Your task to perform on an android device: Open ESPN.com Image 0: 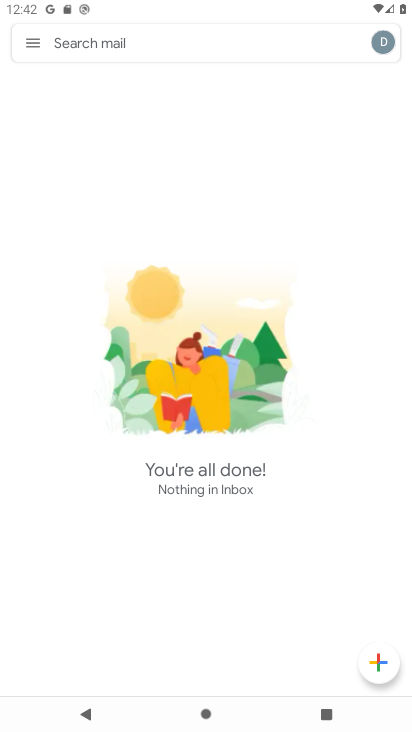
Step 0: press home button
Your task to perform on an android device: Open ESPN.com Image 1: 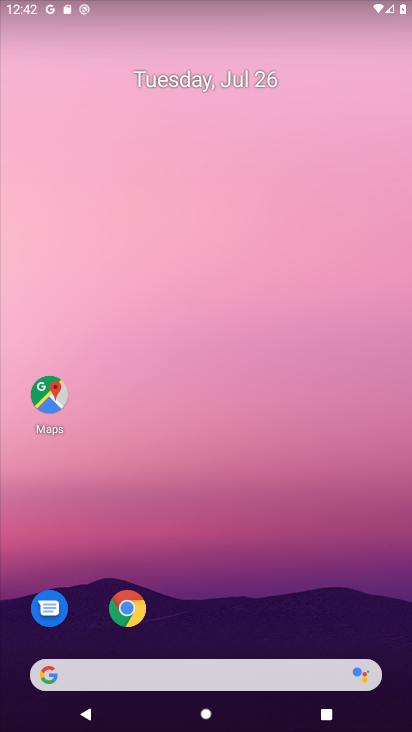
Step 1: click (126, 620)
Your task to perform on an android device: Open ESPN.com Image 2: 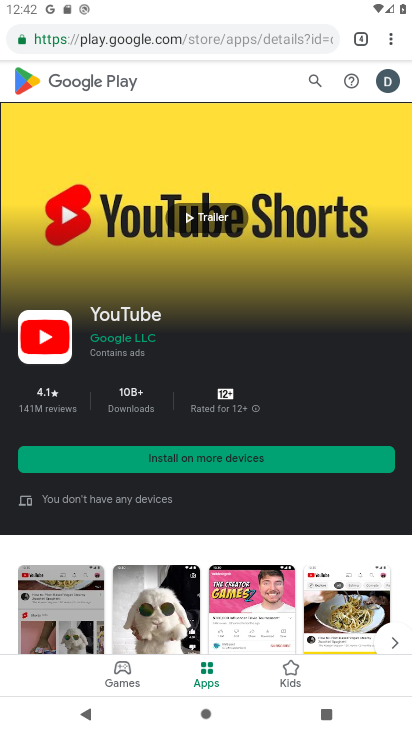
Step 2: click (369, 42)
Your task to perform on an android device: Open ESPN.com Image 3: 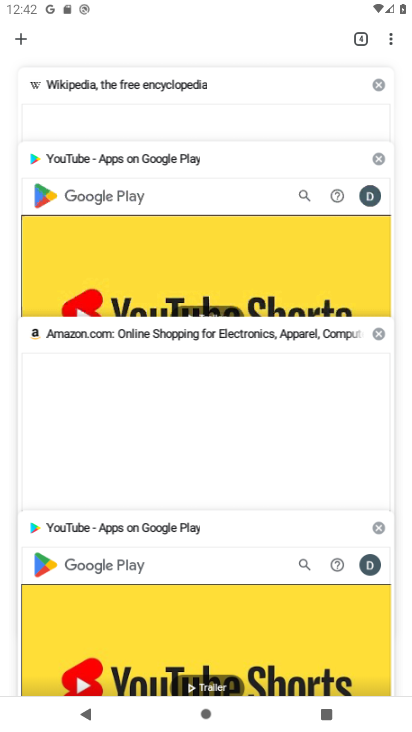
Step 3: click (19, 34)
Your task to perform on an android device: Open ESPN.com Image 4: 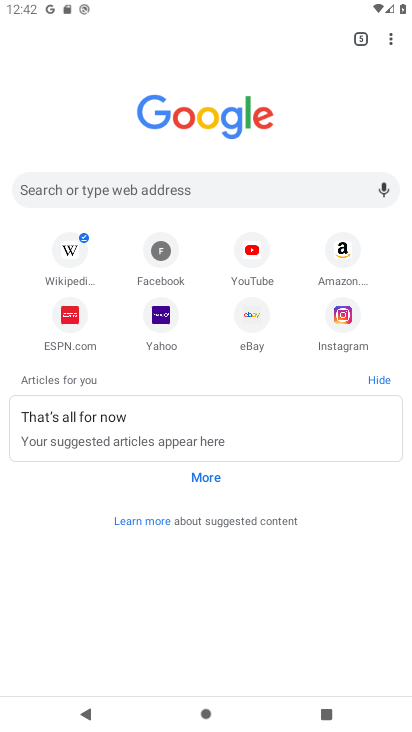
Step 4: click (67, 325)
Your task to perform on an android device: Open ESPN.com Image 5: 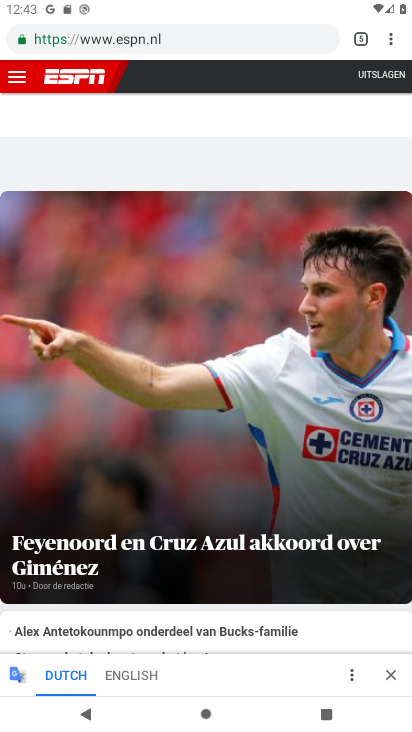
Step 5: task complete